Your task to perform on an android device: make emails show in primary in the gmail app Image 0: 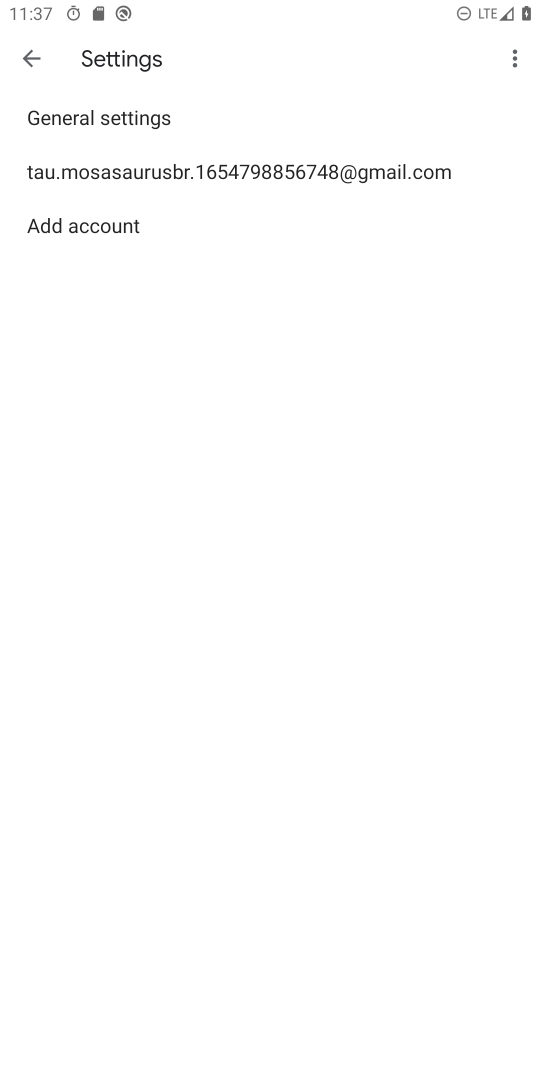
Step 0: click (124, 172)
Your task to perform on an android device: make emails show in primary in the gmail app Image 1: 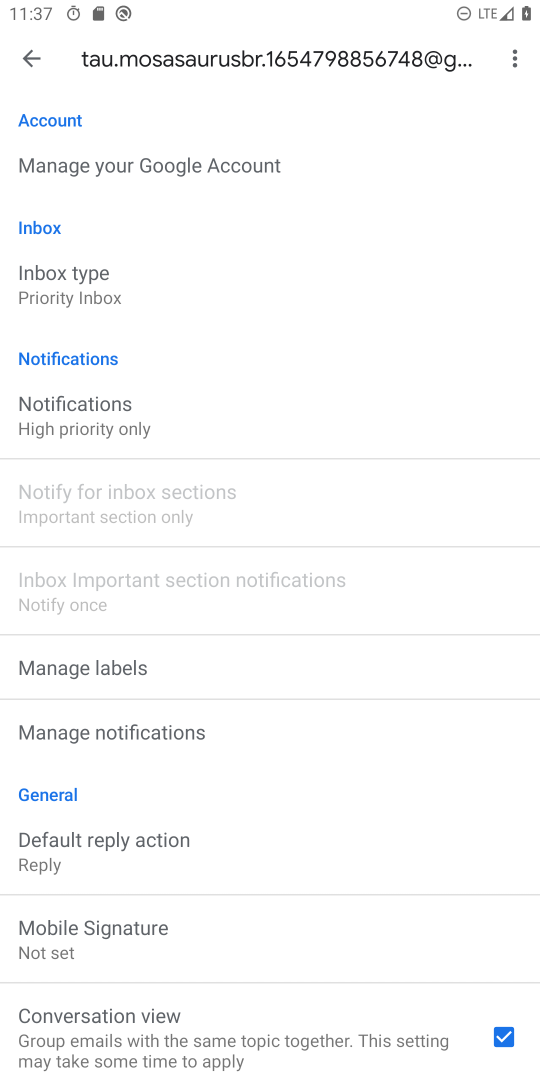
Step 1: click (25, 55)
Your task to perform on an android device: make emails show in primary in the gmail app Image 2: 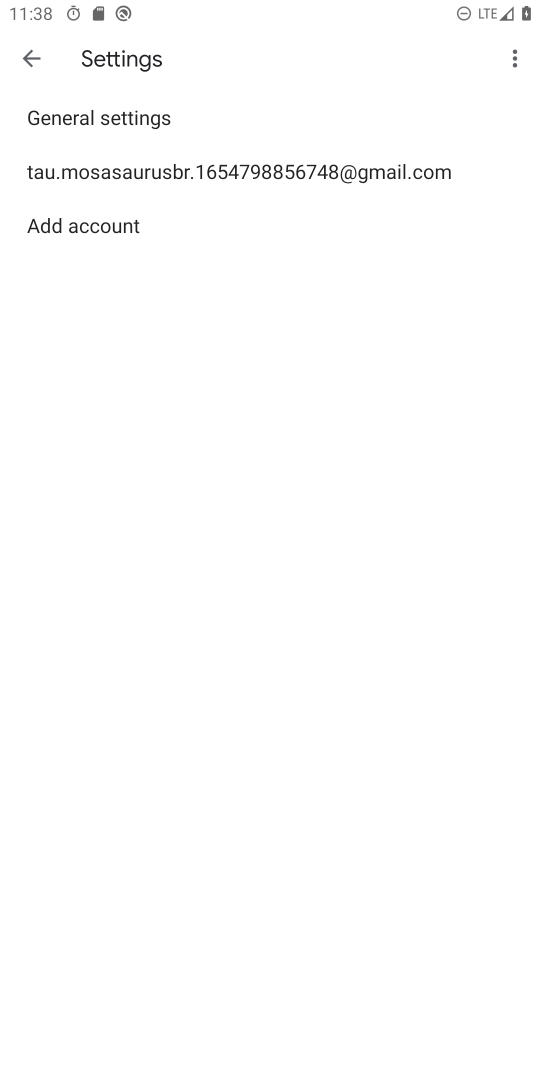
Step 2: click (25, 55)
Your task to perform on an android device: make emails show in primary in the gmail app Image 3: 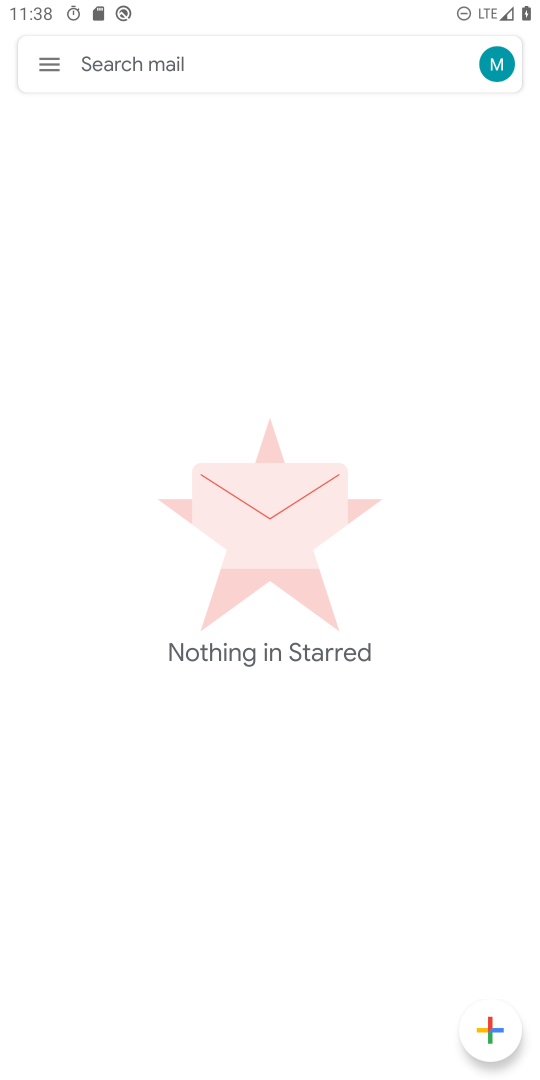
Step 3: click (47, 65)
Your task to perform on an android device: make emails show in primary in the gmail app Image 4: 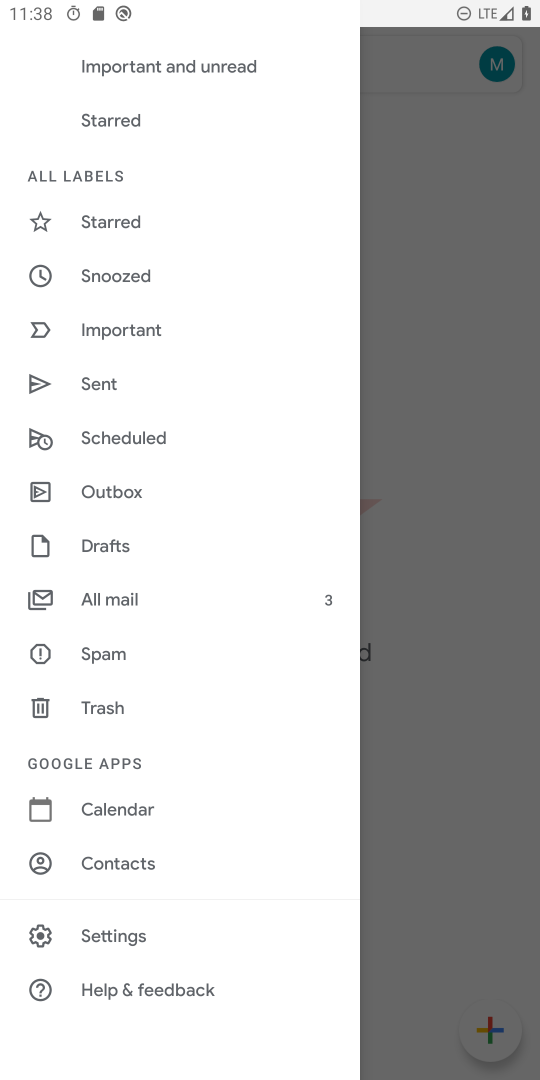
Step 4: task complete